Your task to perform on an android device: What's a good restaurant in New York? Image 0: 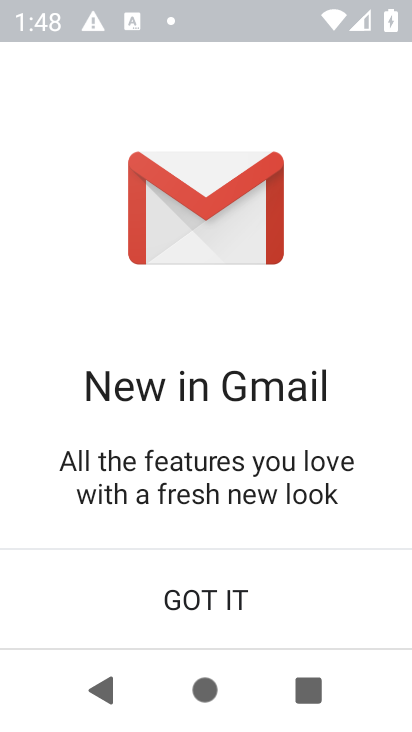
Step 0: press home button
Your task to perform on an android device: What's a good restaurant in New York? Image 1: 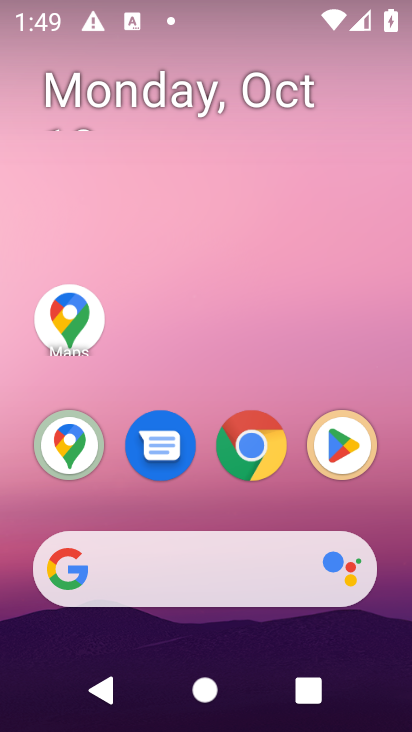
Step 1: click (62, 572)
Your task to perform on an android device: What's a good restaurant in New York? Image 2: 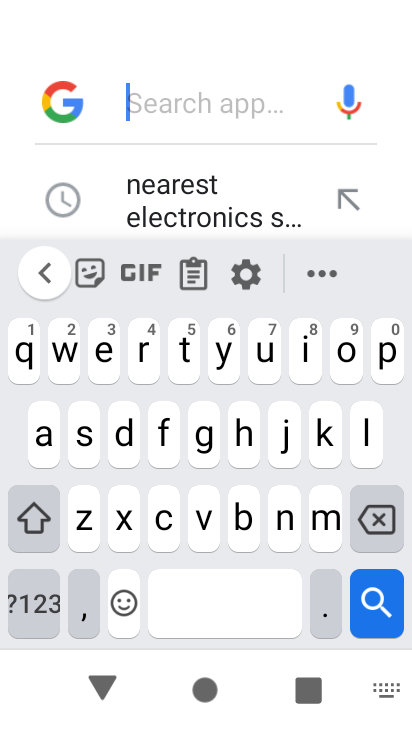
Step 2: type "whats a good restaurant in new york ?"
Your task to perform on an android device: What's a good restaurant in New York? Image 3: 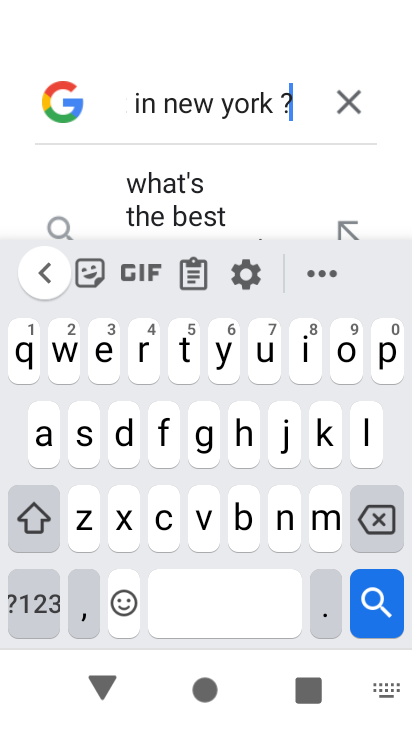
Step 3: click (172, 185)
Your task to perform on an android device: What's a good restaurant in New York? Image 4: 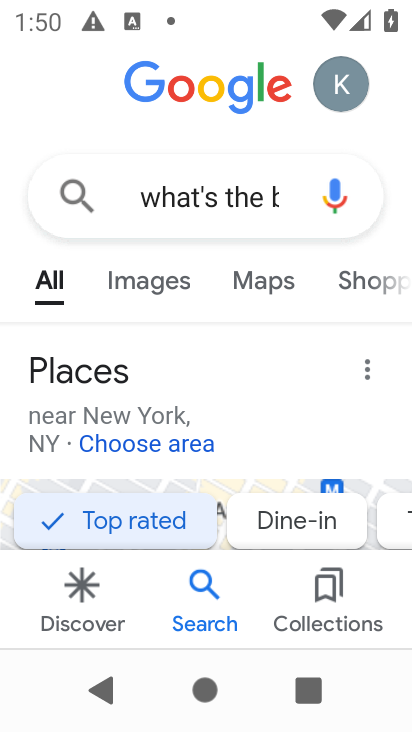
Step 4: task complete